Your task to perform on an android device: move an email to a new category in the gmail app Image 0: 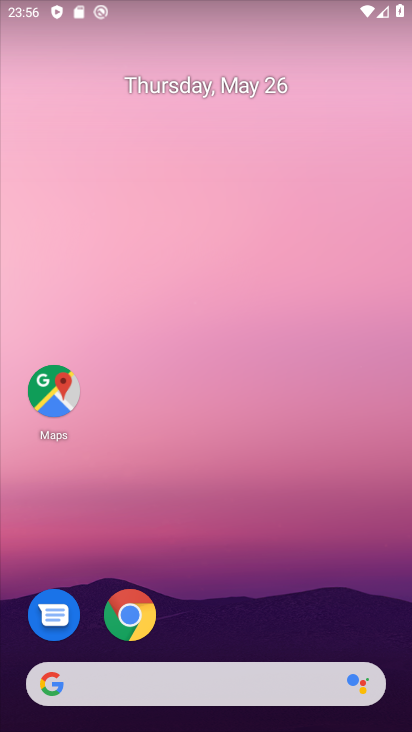
Step 0: drag from (332, 528) to (349, 21)
Your task to perform on an android device: move an email to a new category in the gmail app Image 1: 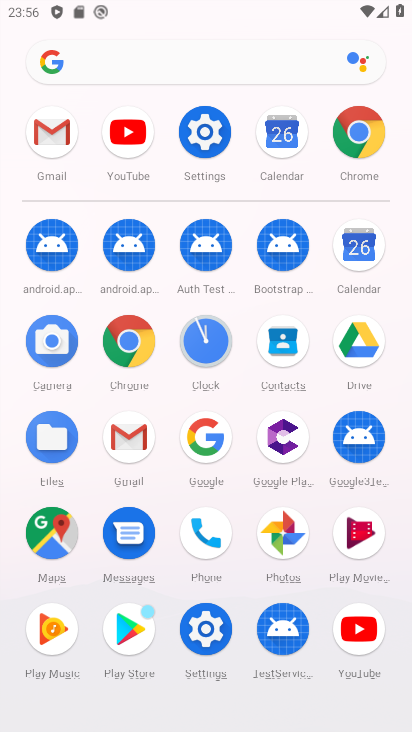
Step 1: click (146, 462)
Your task to perform on an android device: move an email to a new category in the gmail app Image 2: 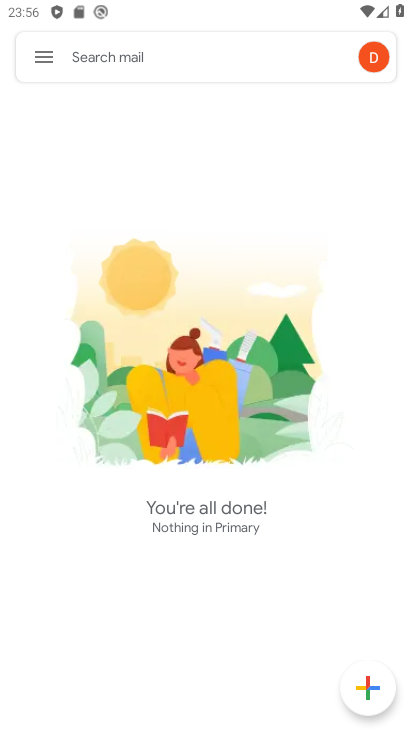
Step 2: click (33, 49)
Your task to perform on an android device: move an email to a new category in the gmail app Image 3: 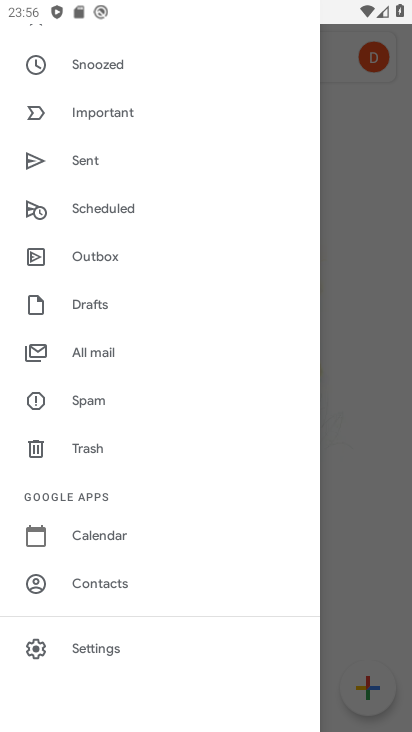
Step 3: task complete